Your task to perform on an android device: Open settings on Google Maps Image 0: 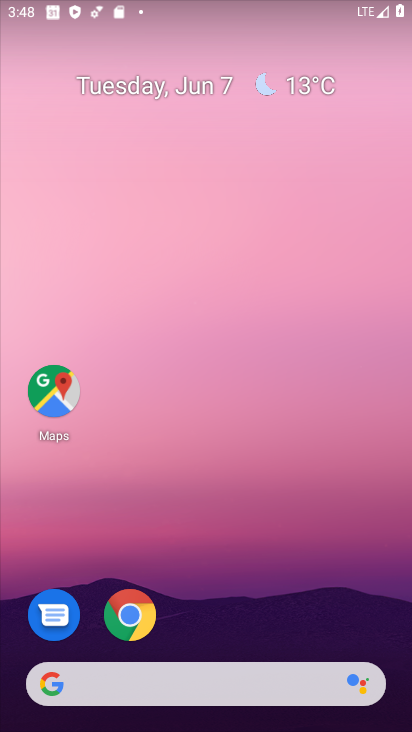
Step 0: drag from (186, 726) to (200, 94)
Your task to perform on an android device: Open settings on Google Maps Image 1: 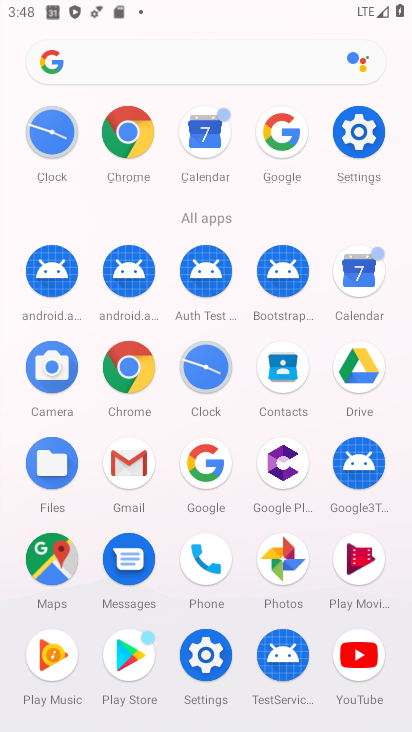
Step 1: click (49, 565)
Your task to perform on an android device: Open settings on Google Maps Image 2: 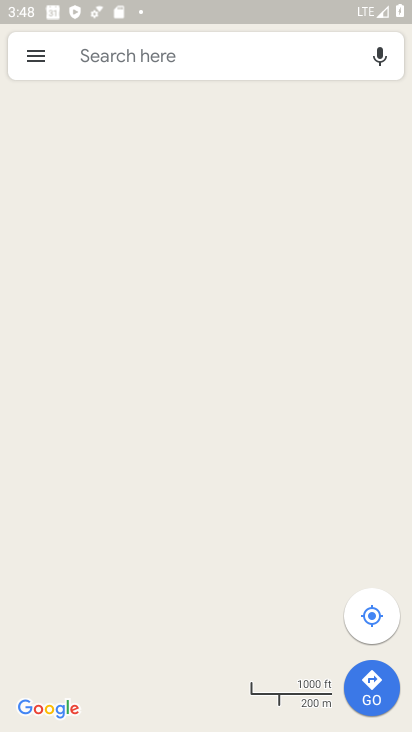
Step 2: click (34, 57)
Your task to perform on an android device: Open settings on Google Maps Image 3: 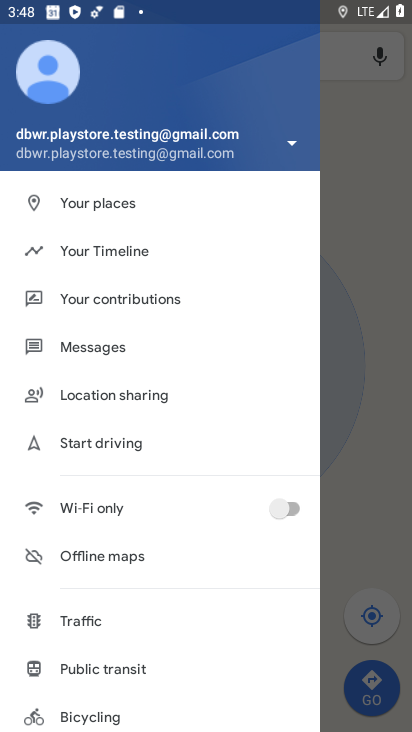
Step 3: drag from (93, 680) to (100, 234)
Your task to perform on an android device: Open settings on Google Maps Image 4: 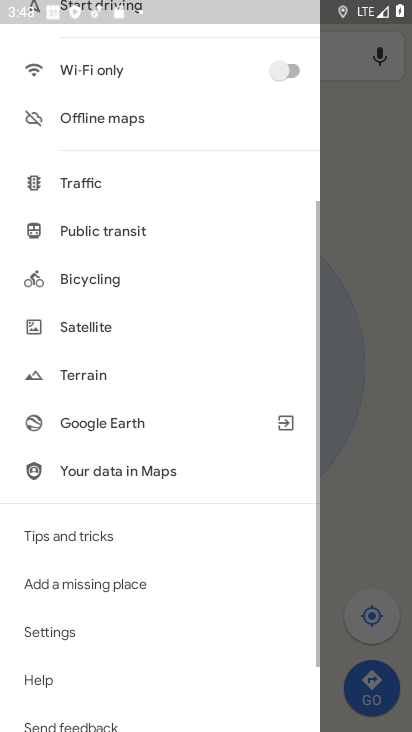
Step 4: drag from (107, 675) to (130, 350)
Your task to perform on an android device: Open settings on Google Maps Image 5: 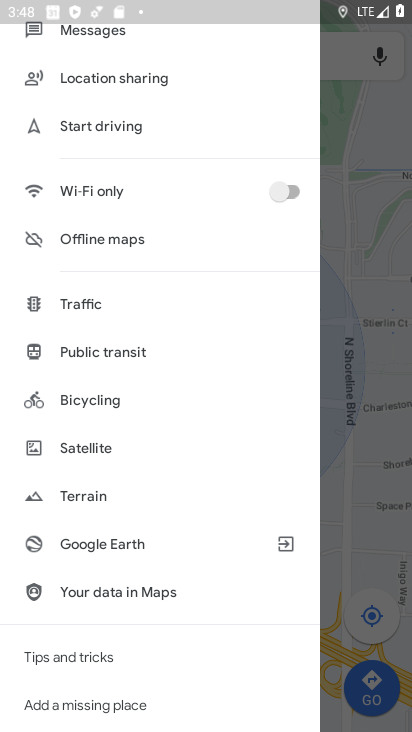
Step 5: drag from (96, 684) to (94, 317)
Your task to perform on an android device: Open settings on Google Maps Image 6: 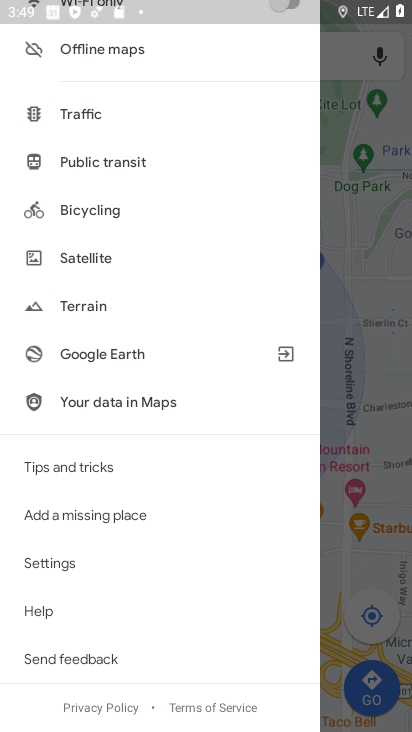
Step 6: click (57, 566)
Your task to perform on an android device: Open settings on Google Maps Image 7: 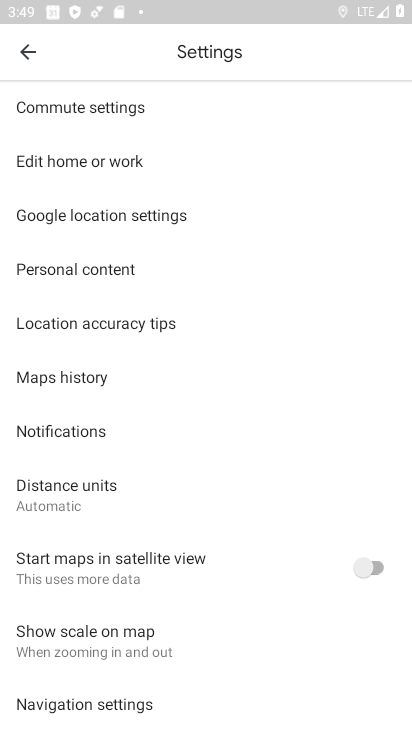
Step 7: task complete